Your task to perform on an android device: Is it going to rain today? Image 0: 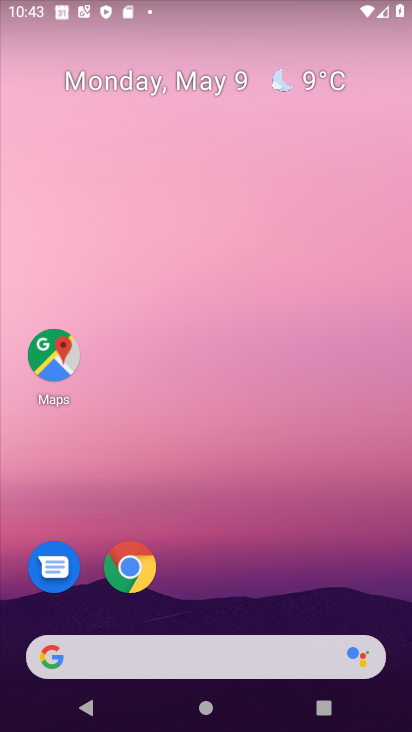
Step 0: drag from (205, 614) to (228, 126)
Your task to perform on an android device: Is it going to rain today? Image 1: 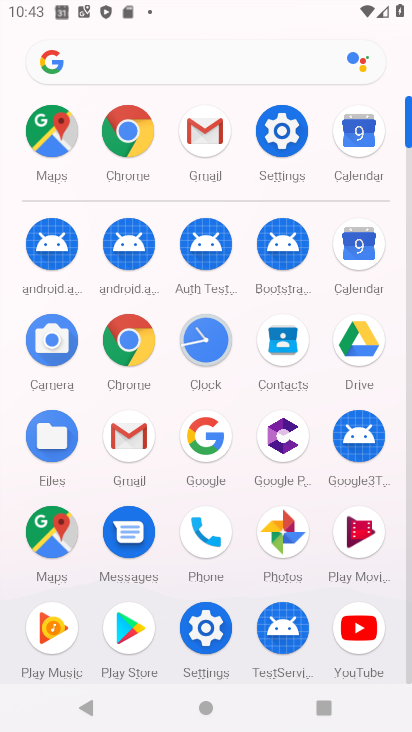
Step 1: press back button
Your task to perform on an android device: Is it going to rain today? Image 2: 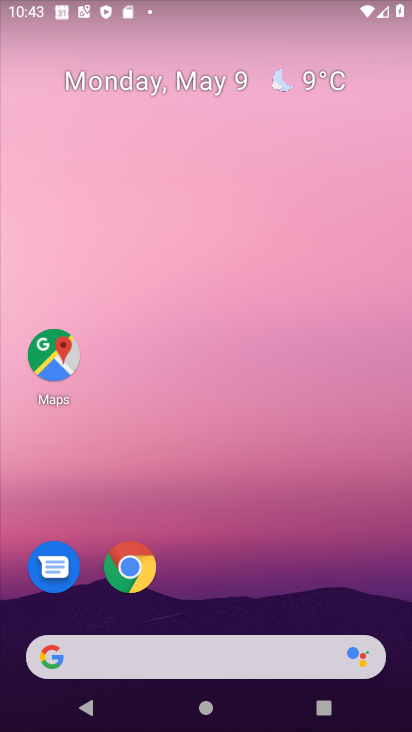
Step 2: click (317, 79)
Your task to perform on an android device: Is it going to rain today? Image 3: 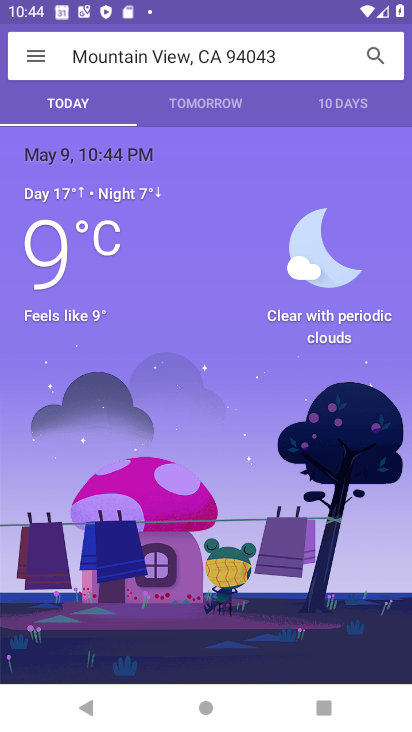
Step 3: drag from (199, 585) to (215, 171)
Your task to perform on an android device: Is it going to rain today? Image 4: 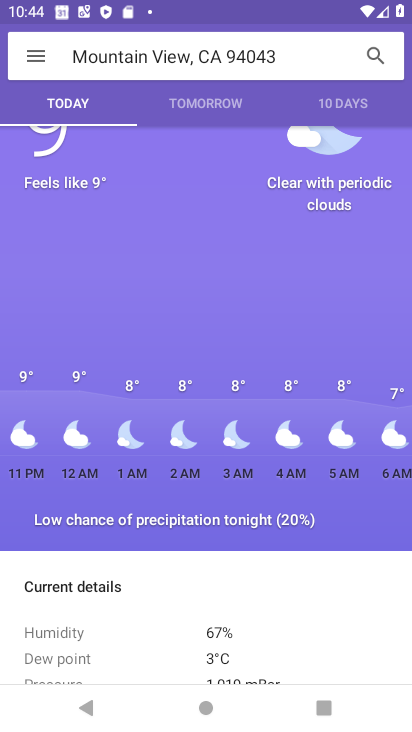
Step 4: drag from (393, 435) to (50, 429)
Your task to perform on an android device: Is it going to rain today? Image 5: 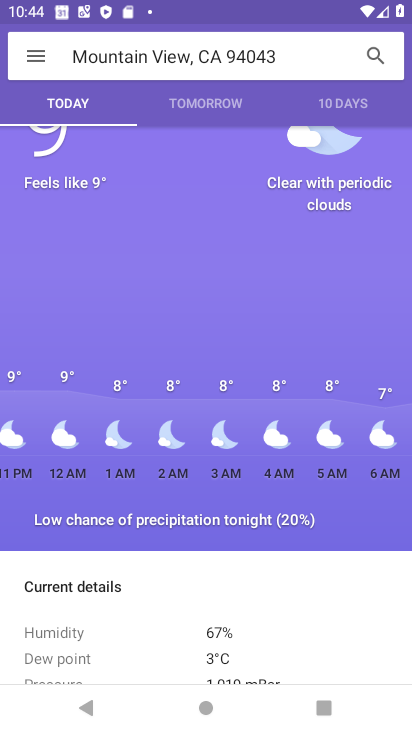
Step 5: drag from (379, 441) to (56, 430)
Your task to perform on an android device: Is it going to rain today? Image 6: 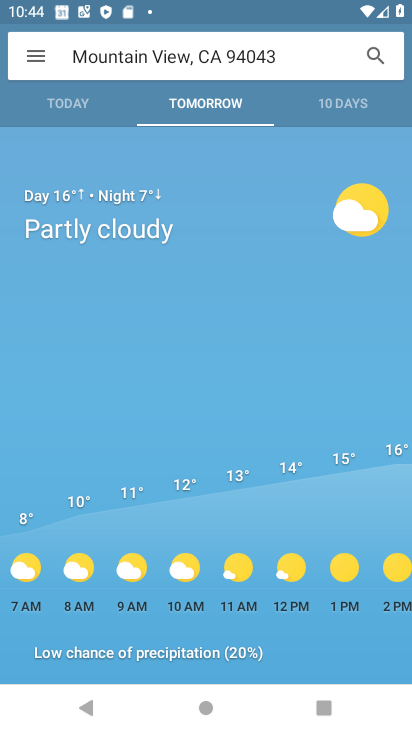
Step 6: drag from (45, 407) to (411, 404)
Your task to perform on an android device: Is it going to rain today? Image 7: 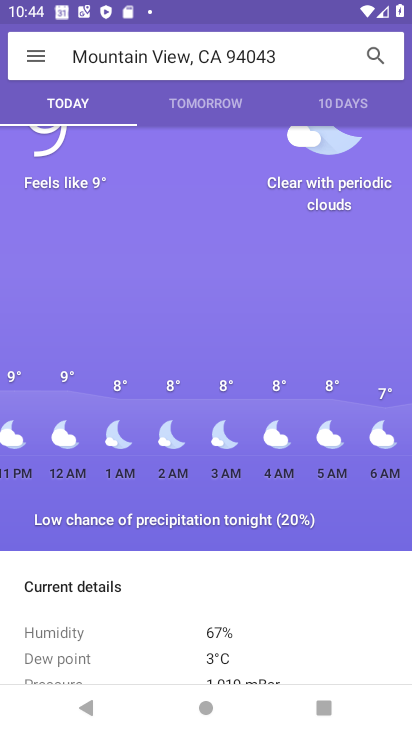
Step 7: drag from (20, 432) to (372, 453)
Your task to perform on an android device: Is it going to rain today? Image 8: 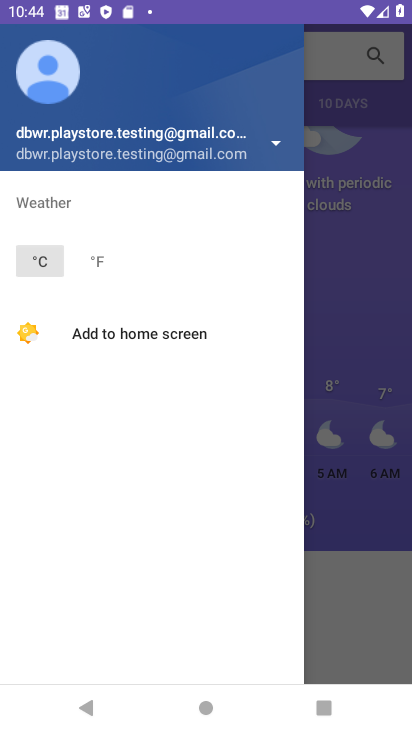
Step 8: drag from (359, 306) to (249, 291)
Your task to perform on an android device: Is it going to rain today? Image 9: 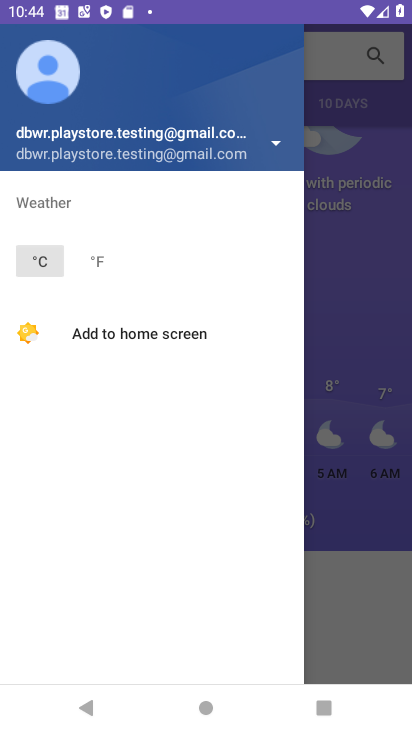
Step 9: click (335, 286)
Your task to perform on an android device: Is it going to rain today? Image 10: 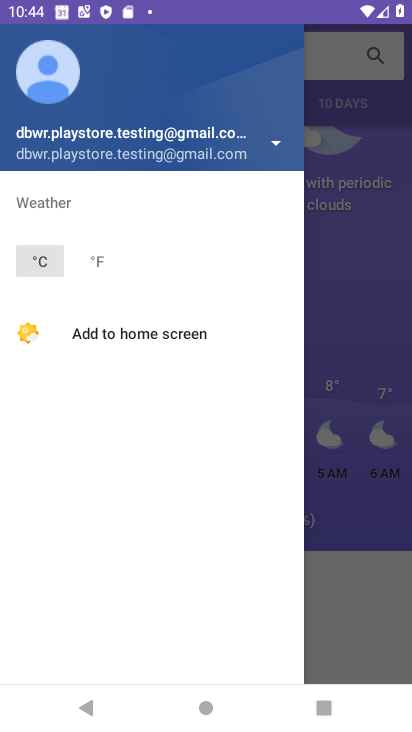
Step 10: click (346, 315)
Your task to perform on an android device: Is it going to rain today? Image 11: 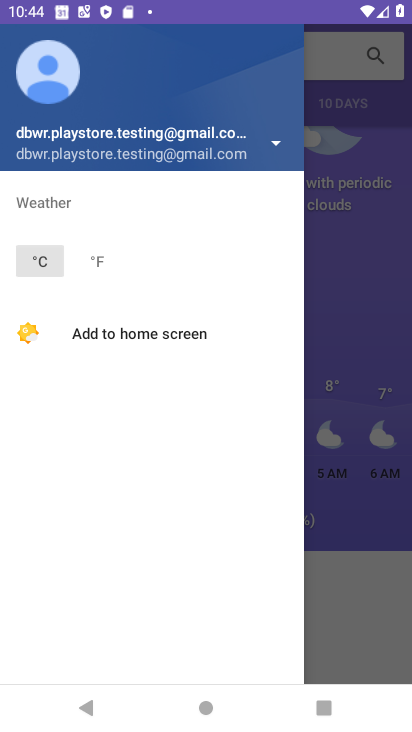
Step 11: click (365, 368)
Your task to perform on an android device: Is it going to rain today? Image 12: 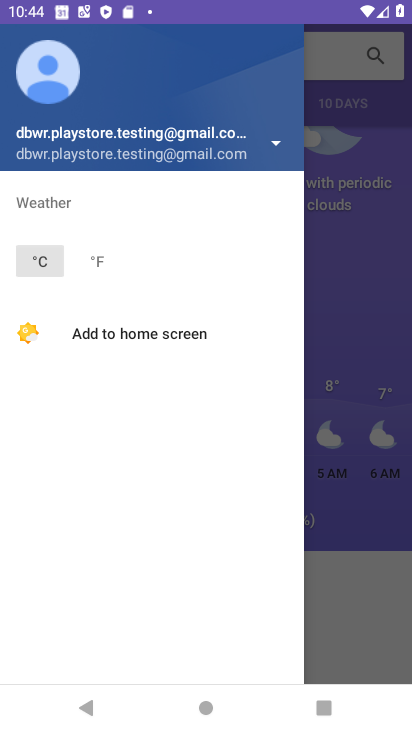
Step 12: task complete